Your task to perform on an android device: change the clock style Image 0: 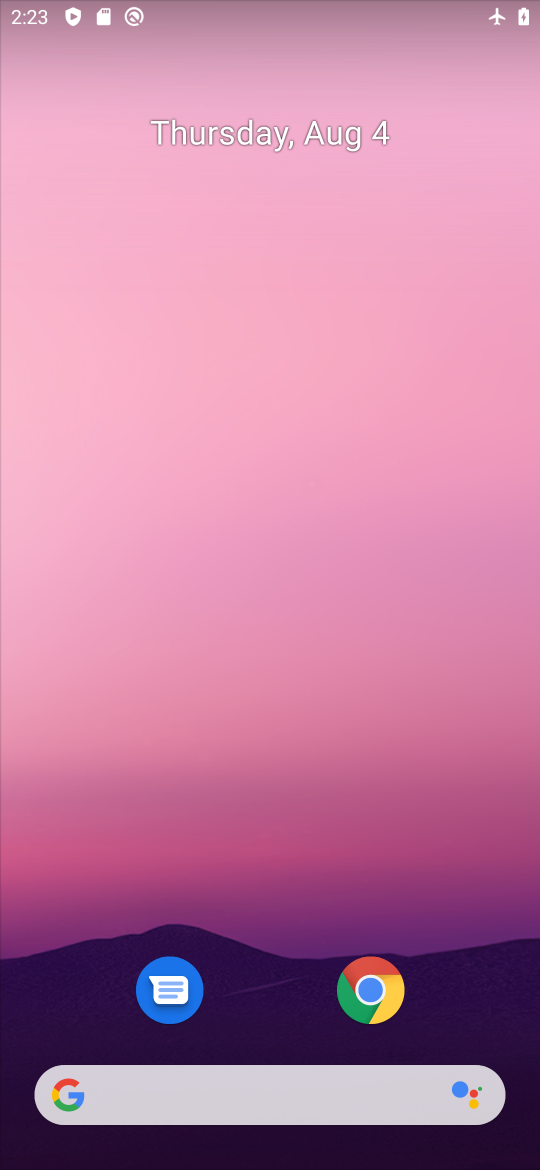
Step 0: drag from (262, 1021) to (366, 7)
Your task to perform on an android device: change the clock style Image 1: 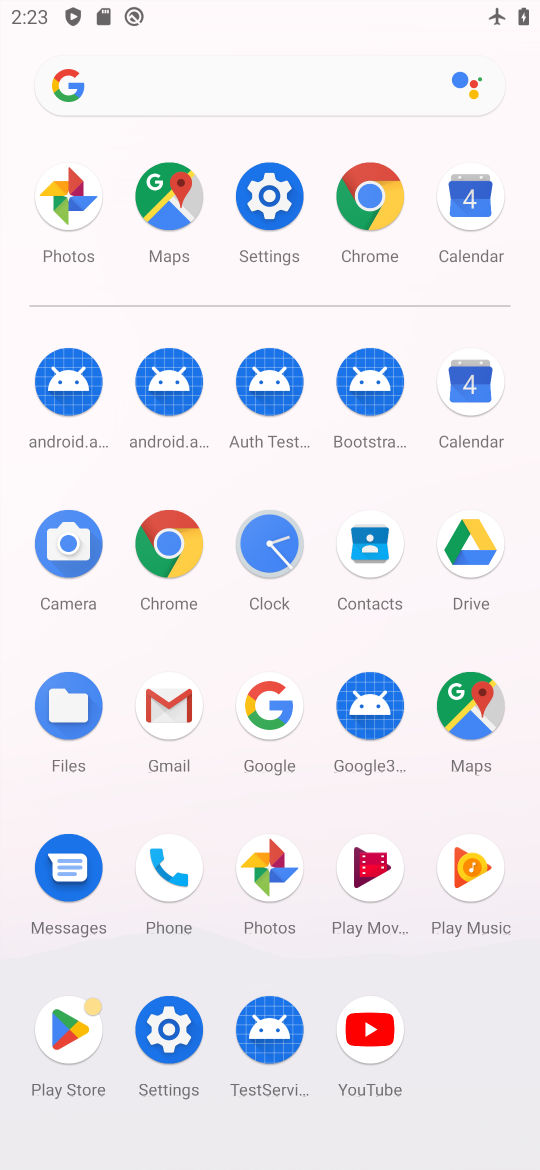
Step 1: click (262, 586)
Your task to perform on an android device: change the clock style Image 2: 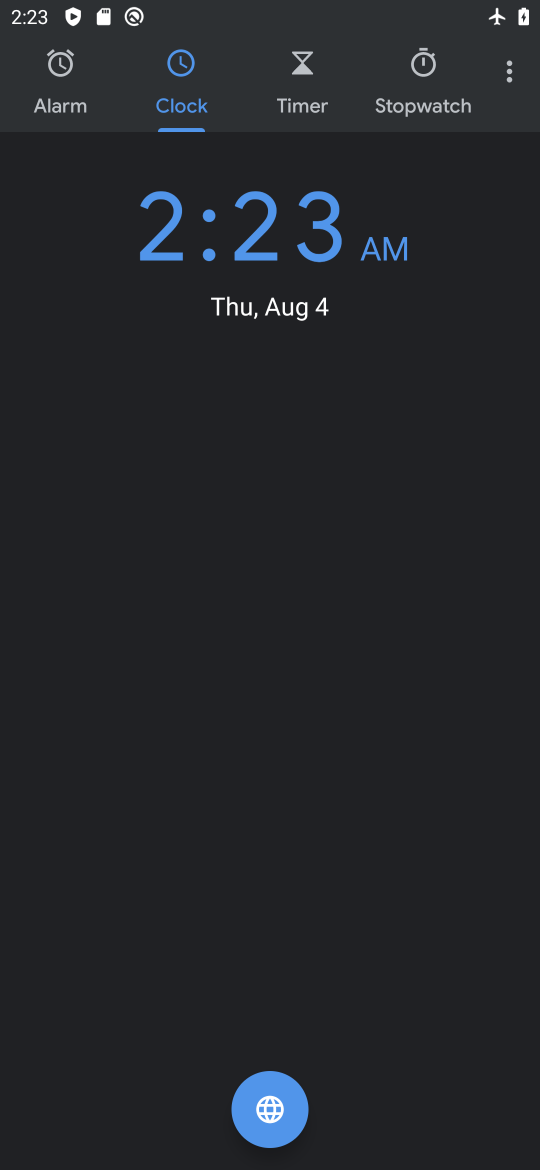
Step 2: task complete